Your task to perform on an android device: move a message to another label in the gmail app Image 0: 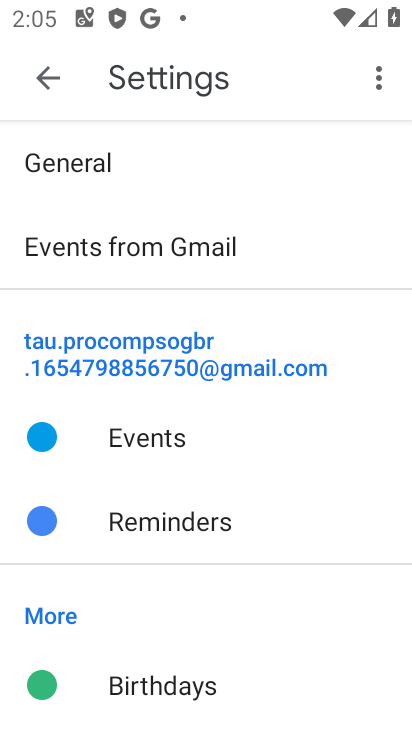
Step 0: press back button
Your task to perform on an android device: move a message to another label in the gmail app Image 1: 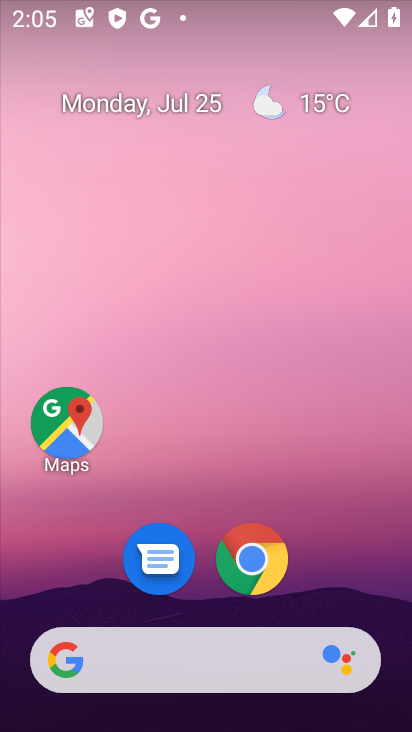
Step 1: drag from (74, 584) to (188, 46)
Your task to perform on an android device: move a message to another label in the gmail app Image 2: 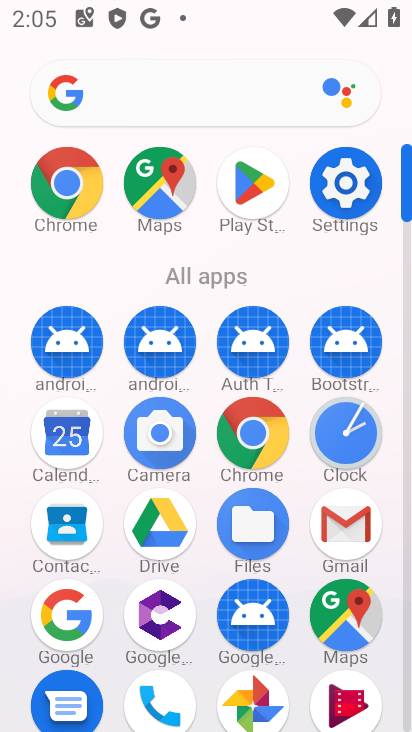
Step 2: click (330, 525)
Your task to perform on an android device: move a message to another label in the gmail app Image 3: 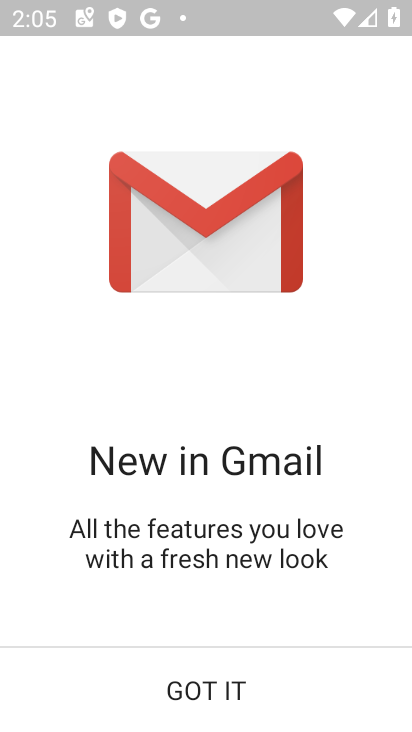
Step 3: click (214, 684)
Your task to perform on an android device: move a message to another label in the gmail app Image 4: 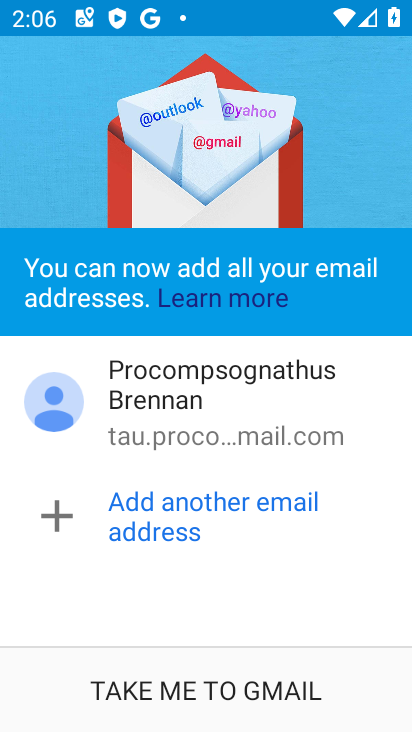
Step 4: click (217, 681)
Your task to perform on an android device: move a message to another label in the gmail app Image 5: 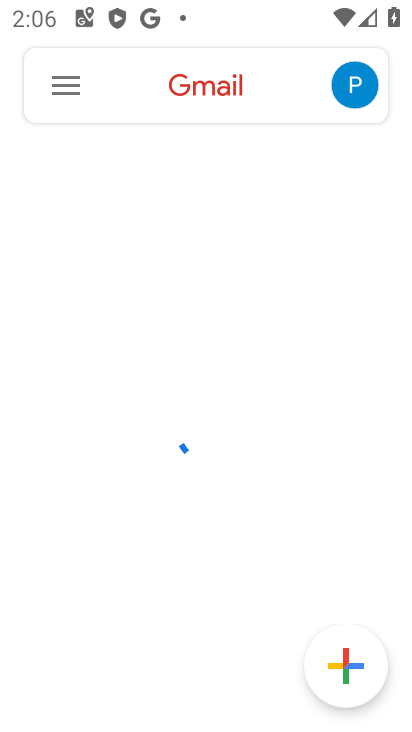
Step 5: click (71, 95)
Your task to perform on an android device: move a message to another label in the gmail app Image 6: 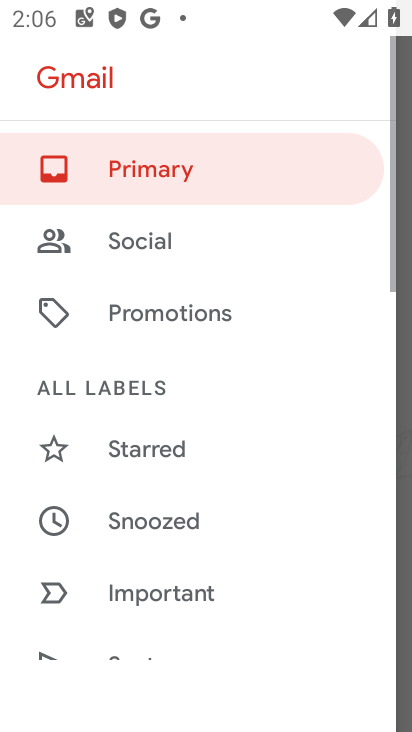
Step 6: drag from (166, 588) to (292, 82)
Your task to perform on an android device: move a message to another label in the gmail app Image 7: 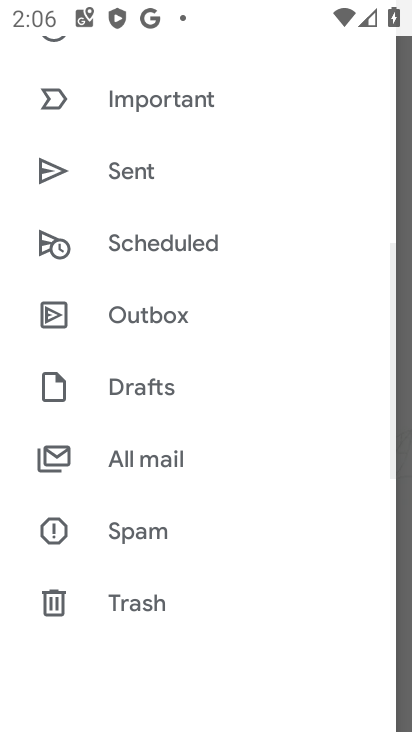
Step 7: click (179, 450)
Your task to perform on an android device: move a message to another label in the gmail app Image 8: 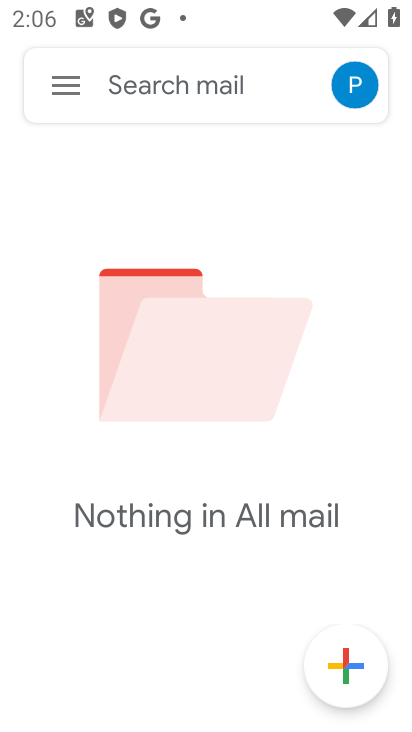
Step 8: click (49, 82)
Your task to perform on an android device: move a message to another label in the gmail app Image 9: 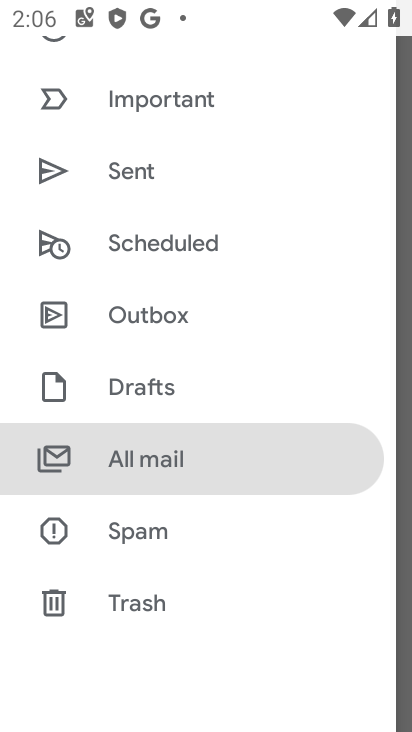
Step 9: click (171, 452)
Your task to perform on an android device: move a message to another label in the gmail app Image 10: 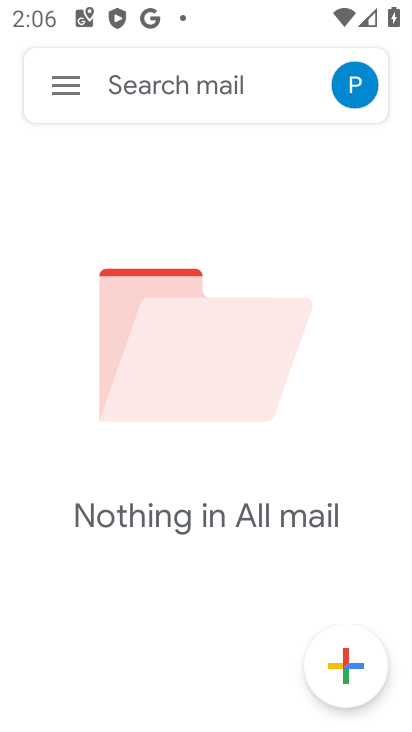
Step 10: task complete